Your task to perform on an android device: open chrome privacy settings Image 0: 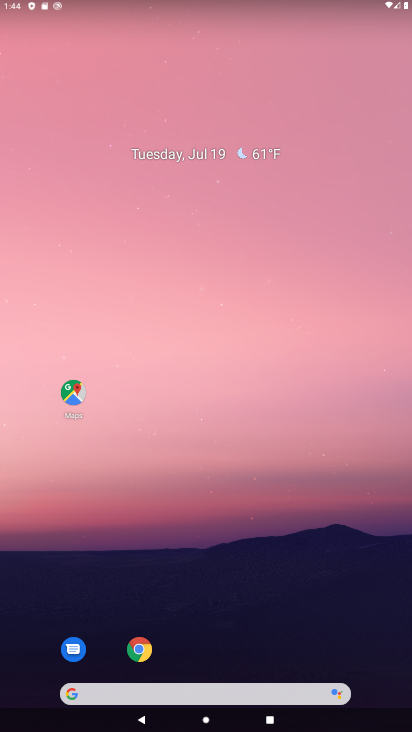
Step 0: drag from (295, 154) to (307, 119)
Your task to perform on an android device: open chrome privacy settings Image 1: 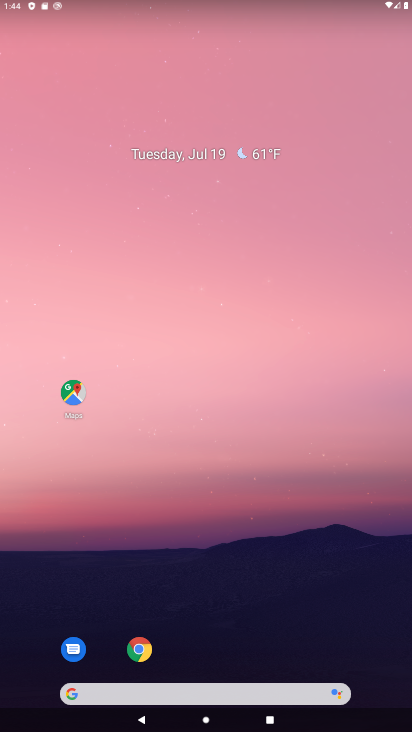
Step 1: drag from (342, 611) to (286, 69)
Your task to perform on an android device: open chrome privacy settings Image 2: 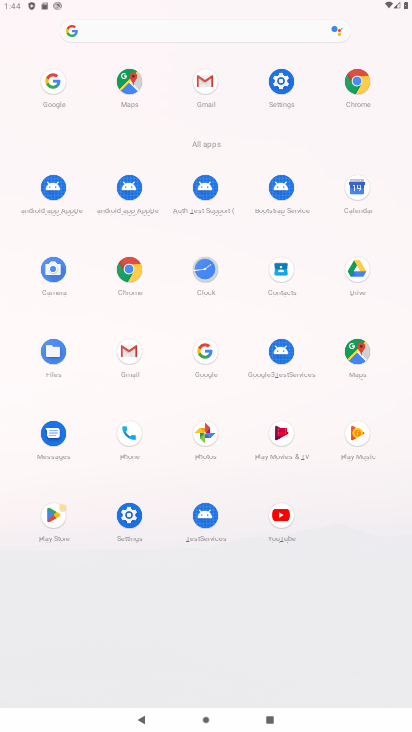
Step 2: click (356, 109)
Your task to perform on an android device: open chrome privacy settings Image 3: 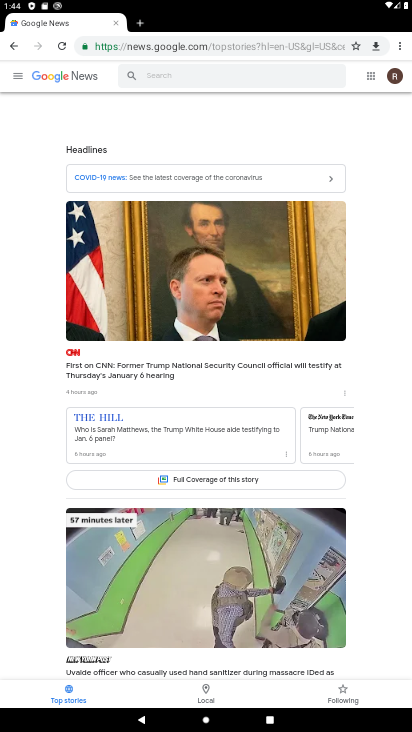
Step 3: drag from (397, 49) to (305, 309)
Your task to perform on an android device: open chrome privacy settings Image 4: 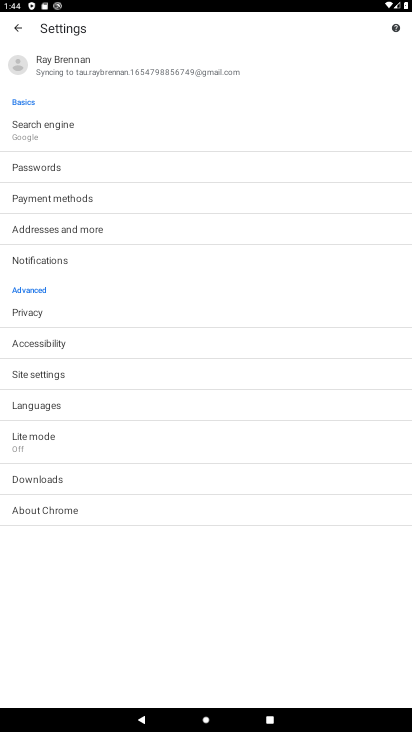
Step 4: click (42, 311)
Your task to perform on an android device: open chrome privacy settings Image 5: 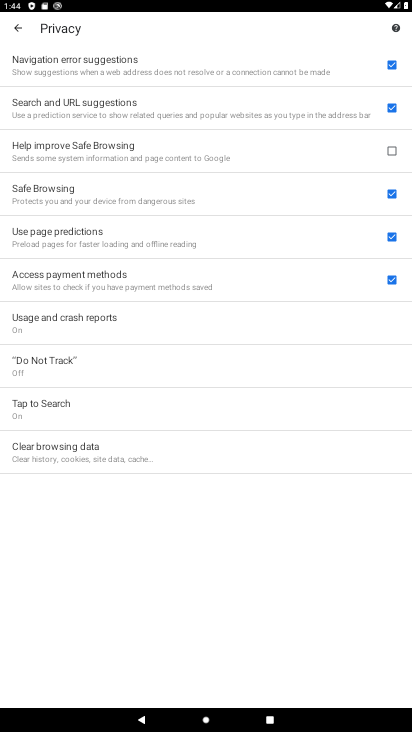
Step 5: task complete